Your task to perform on an android device: Show me recent news Image 0: 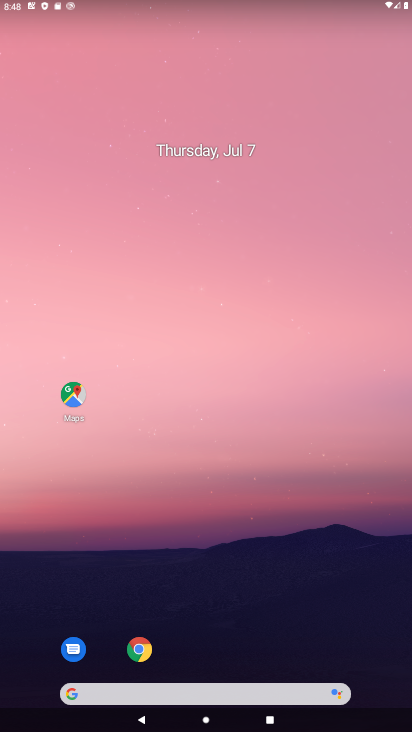
Step 0: drag from (8, 206) to (343, 198)
Your task to perform on an android device: Show me recent news Image 1: 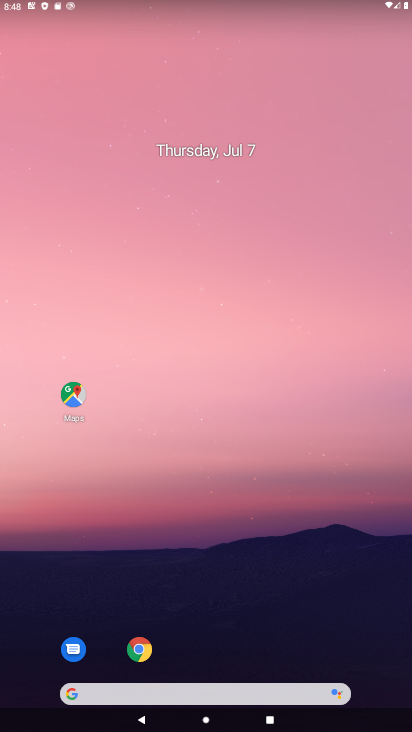
Step 1: drag from (5, 261) to (407, 264)
Your task to perform on an android device: Show me recent news Image 2: 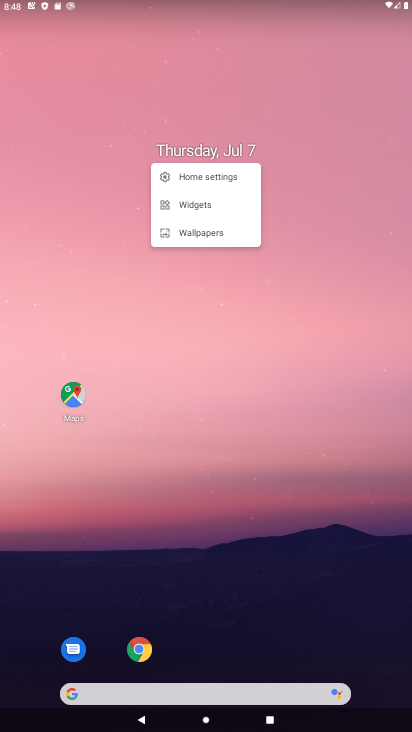
Step 2: click (407, 379)
Your task to perform on an android device: Show me recent news Image 3: 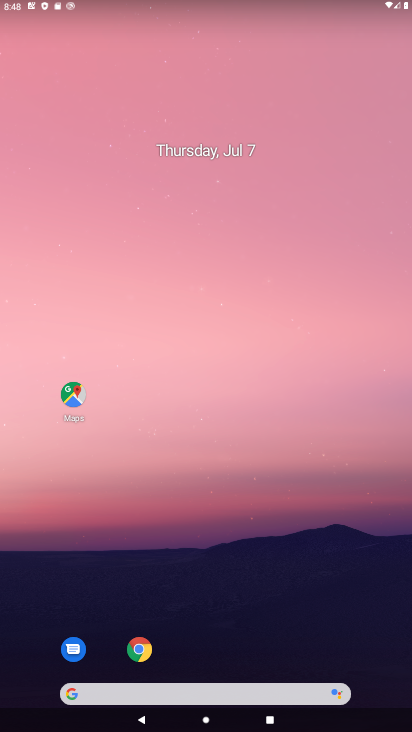
Step 3: drag from (2, 249) to (346, 252)
Your task to perform on an android device: Show me recent news Image 4: 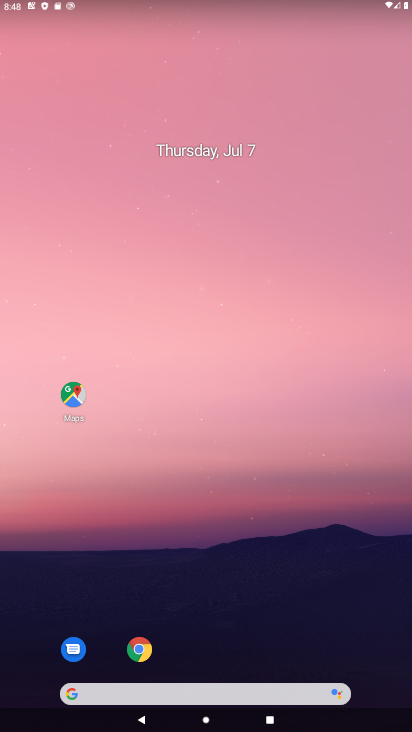
Step 4: drag from (5, 487) to (277, 486)
Your task to perform on an android device: Show me recent news Image 5: 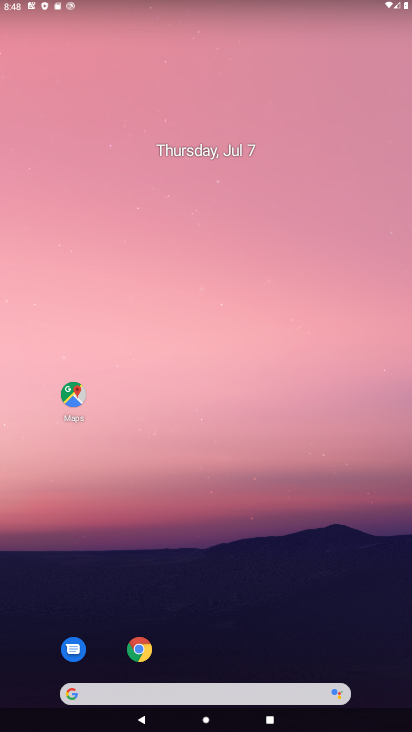
Step 5: drag from (0, 233) to (381, 238)
Your task to perform on an android device: Show me recent news Image 6: 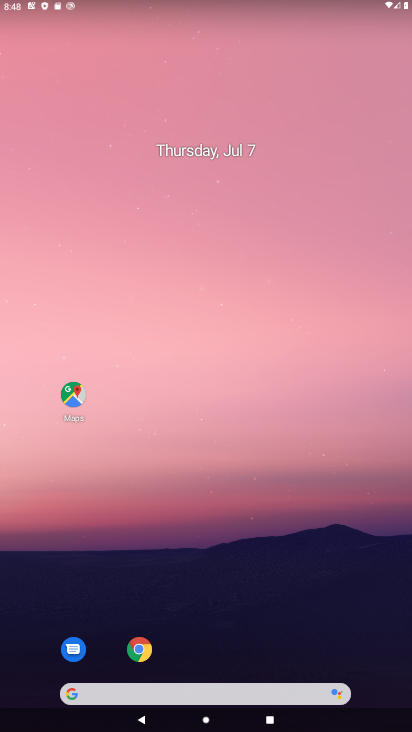
Step 6: drag from (237, 720) to (237, 548)
Your task to perform on an android device: Show me recent news Image 7: 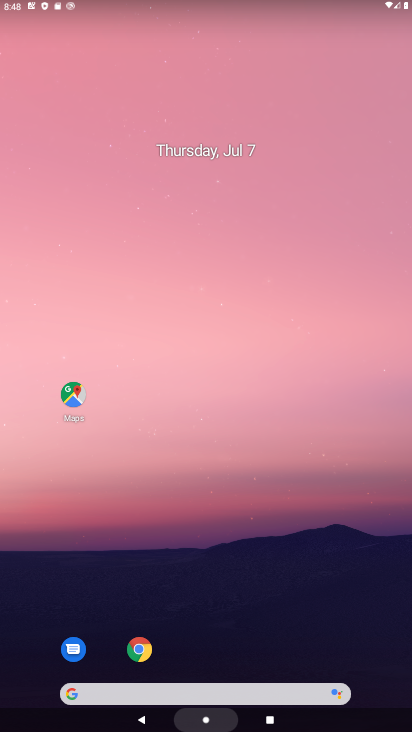
Step 7: drag from (222, 218) to (211, 123)
Your task to perform on an android device: Show me recent news Image 8: 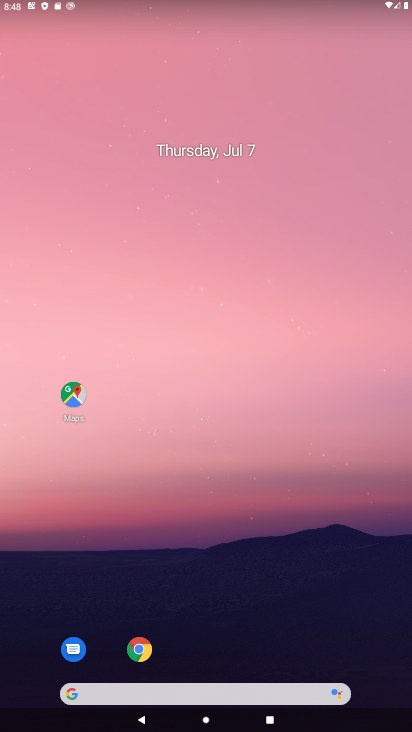
Step 8: drag from (234, 720) to (209, 514)
Your task to perform on an android device: Show me recent news Image 9: 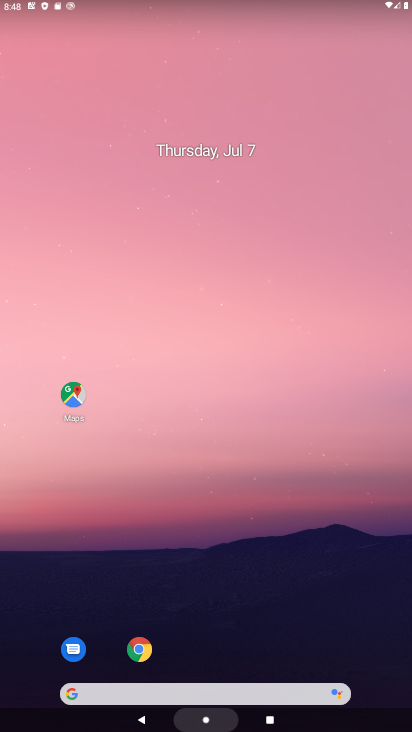
Step 9: click (190, 110)
Your task to perform on an android device: Show me recent news Image 10: 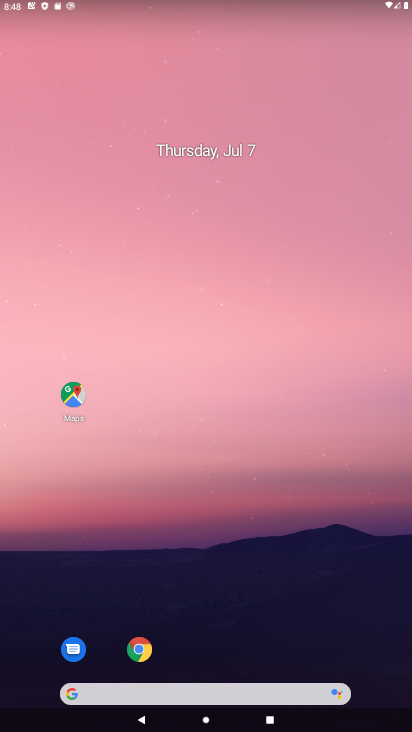
Step 10: drag from (222, 724) to (198, 154)
Your task to perform on an android device: Show me recent news Image 11: 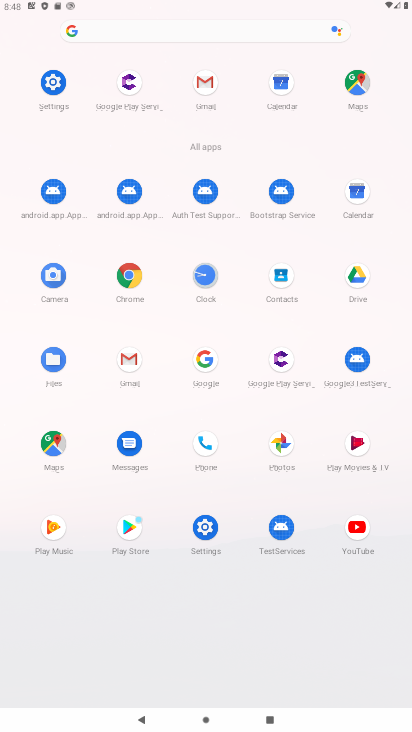
Step 11: click (210, 360)
Your task to perform on an android device: Show me recent news Image 12: 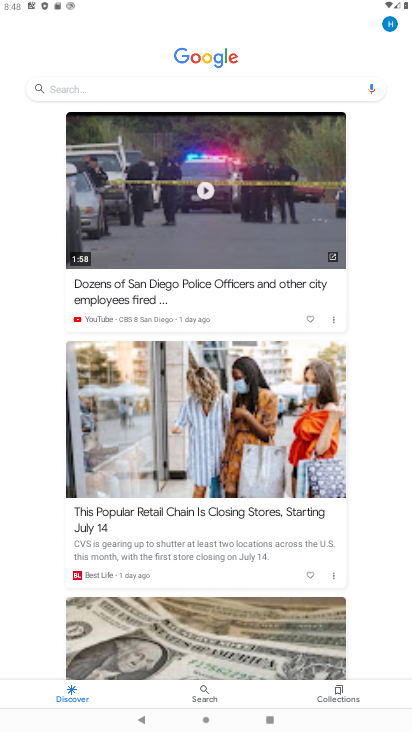
Step 12: task complete